Your task to perform on an android device: Open settings Image 0: 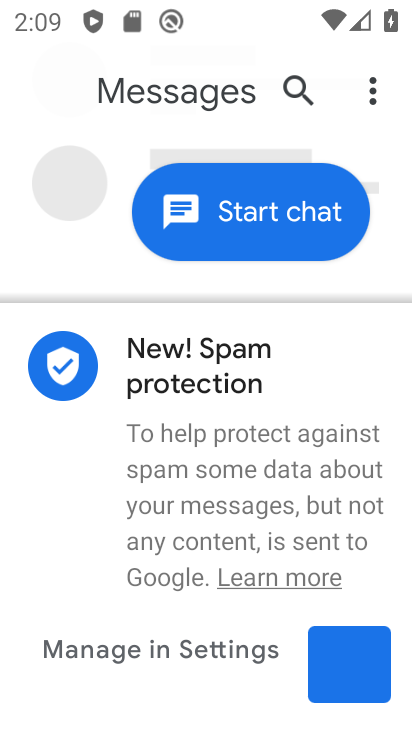
Step 0: press home button
Your task to perform on an android device: Open settings Image 1: 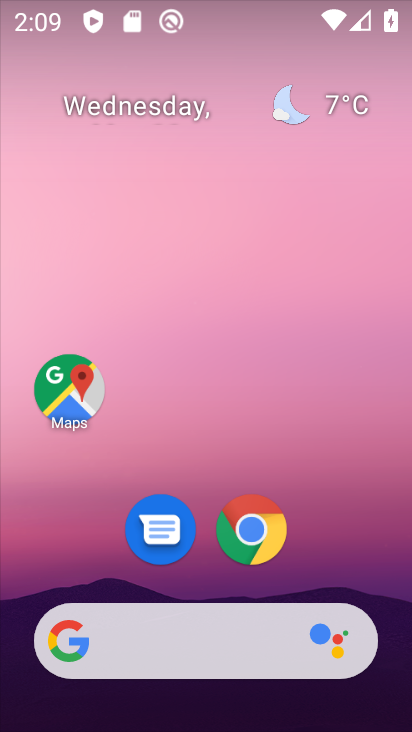
Step 1: drag from (360, 541) to (401, 83)
Your task to perform on an android device: Open settings Image 2: 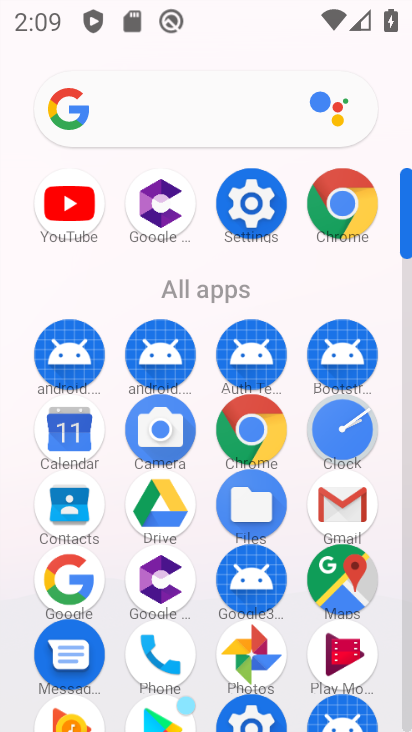
Step 2: click (269, 186)
Your task to perform on an android device: Open settings Image 3: 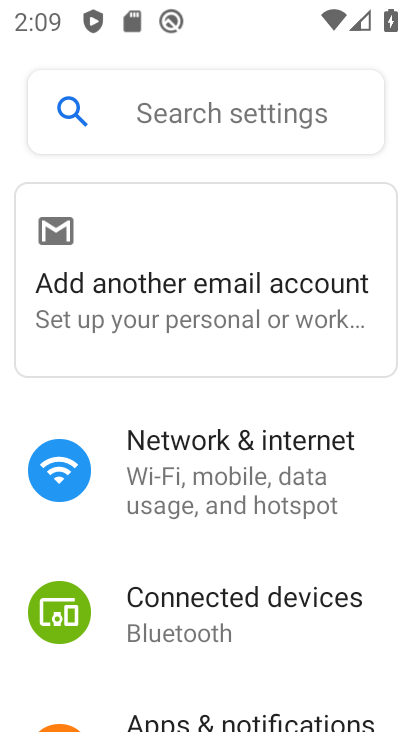
Step 3: task complete